Your task to perform on an android device: allow notifications from all sites in the chrome app Image 0: 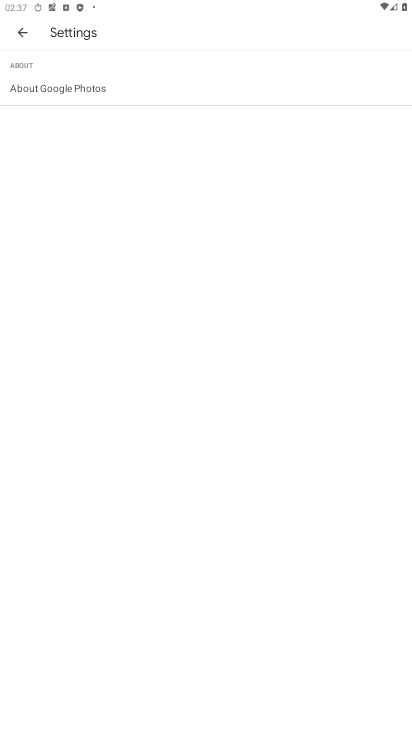
Step 0: press home button
Your task to perform on an android device: allow notifications from all sites in the chrome app Image 1: 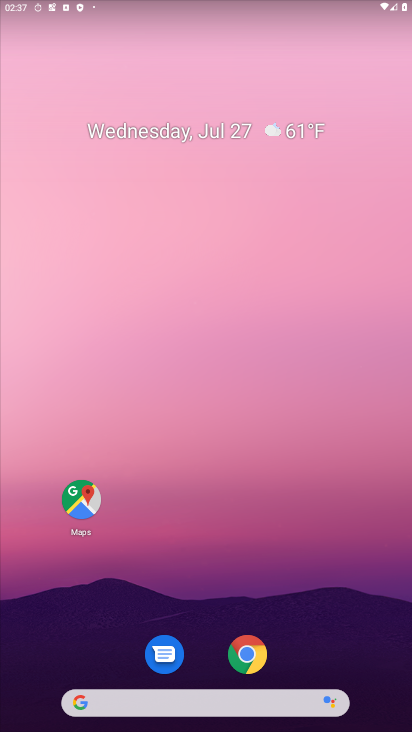
Step 1: drag from (137, 708) to (190, 190)
Your task to perform on an android device: allow notifications from all sites in the chrome app Image 2: 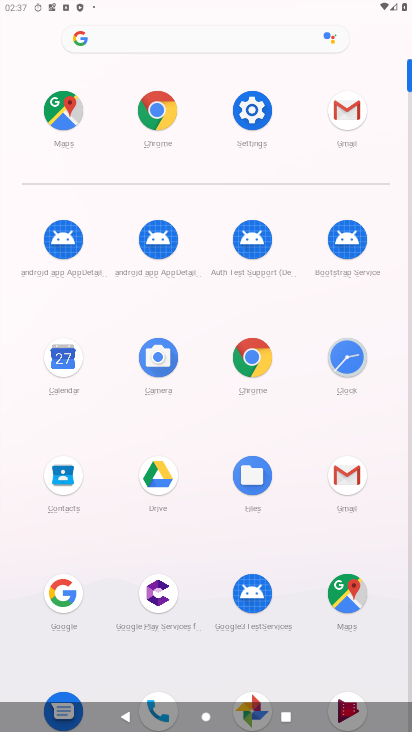
Step 2: click (248, 352)
Your task to perform on an android device: allow notifications from all sites in the chrome app Image 3: 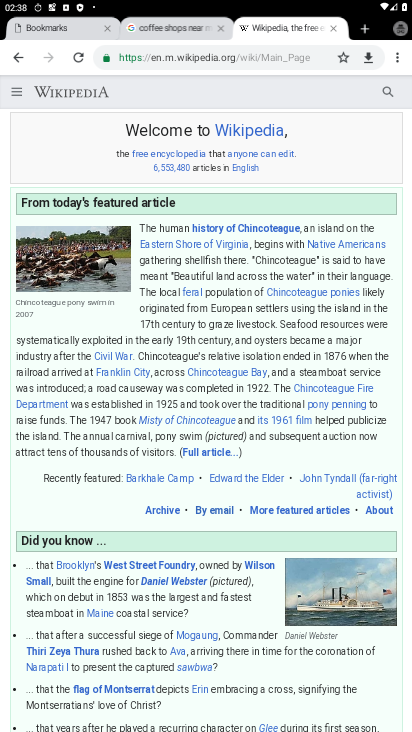
Step 3: drag from (391, 52) to (289, 383)
Your task to perform on an android device: allow notifications from all sites in the chrome app Image 4: 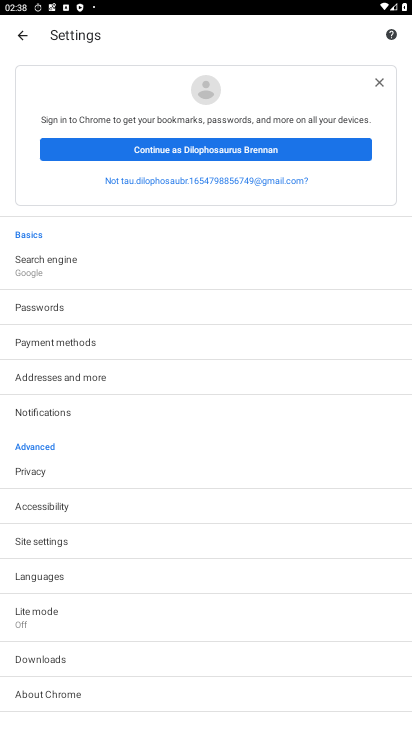
Step 4: drag from (110, 702) to (177, 264)
Your task to perform on an android device: allow notifications from all sites in the chrome app Image 5: 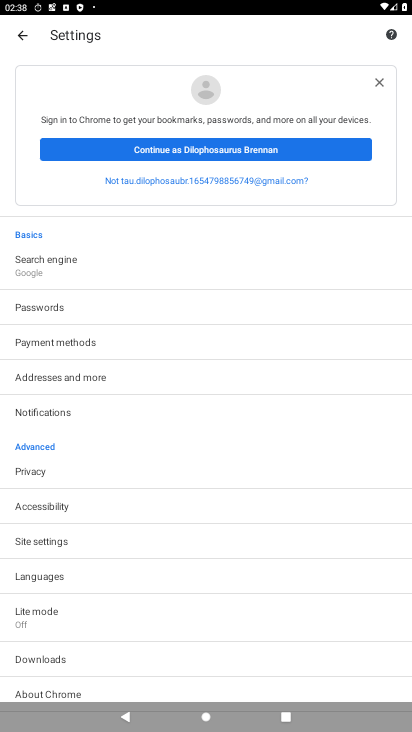
Step 5: drag from (109, 592) to (108, 319)
Your task to perform on an android device: allow notifications from all sites in the chrome app Image 6: 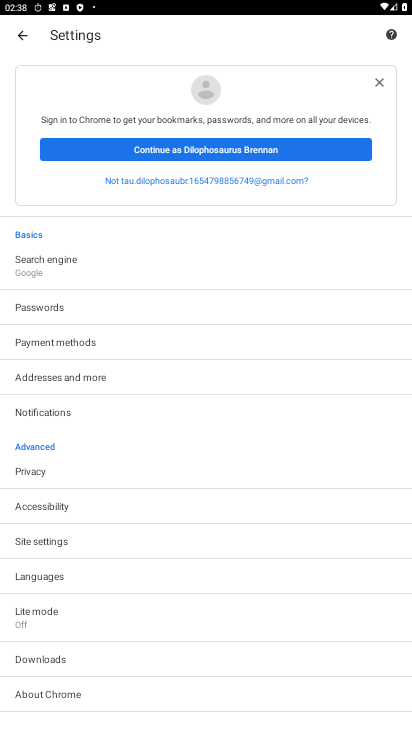
Step 6: click (66, 541)
Your task to perform on an android device: allow notifications from all sites in the chrome app Image 7: 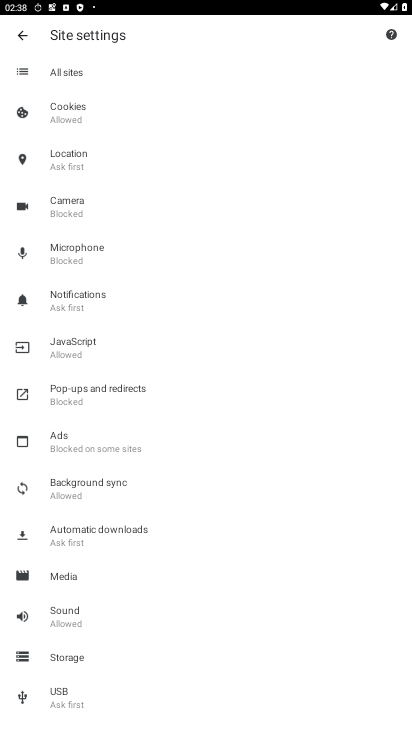
Step 7: click (64, 318)
Your task to perform on an android device: allow notifications from all sites in the chrome app Image 8: 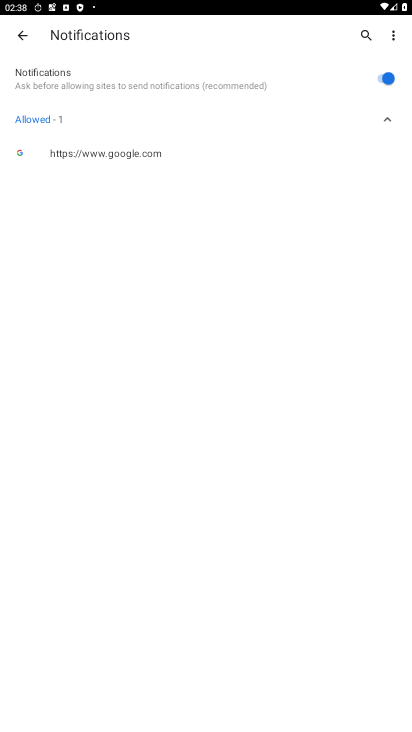
Step 8: task complete